Your task to perform on an android device: remove spam from my inbox in the gmail app Image 0: 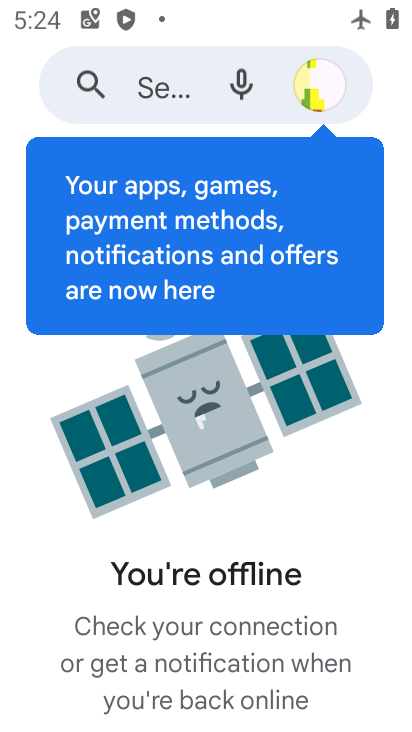
Step 0: press home button
Your task to perform on an android device: remove spam from my inbox in the gmail app Image 1: 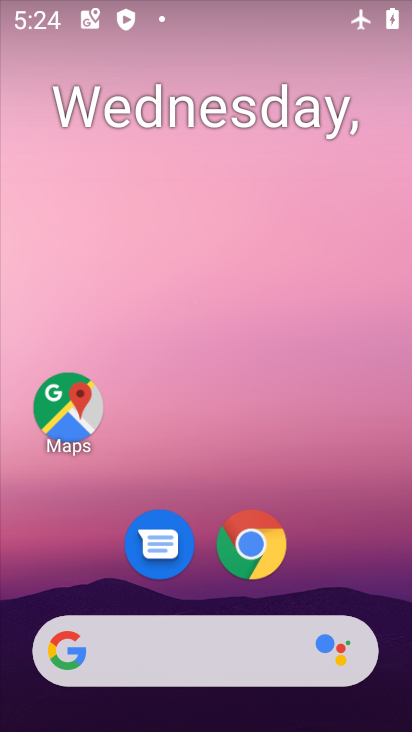
Step 1: drag from (397, 718) to (357, 75)
Your task to perform on an android device: remove spam from my inbox in the gmail app Image 2: 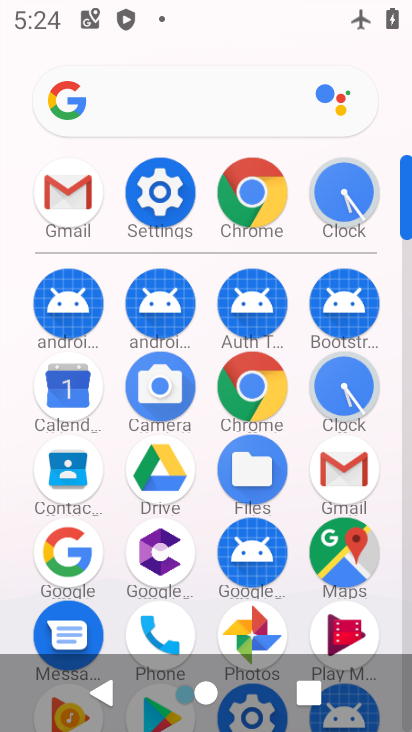
Step 2: click (49, 186)
Your task to perform on an android device: remove spam from my inbox in the gmail app Image 3: 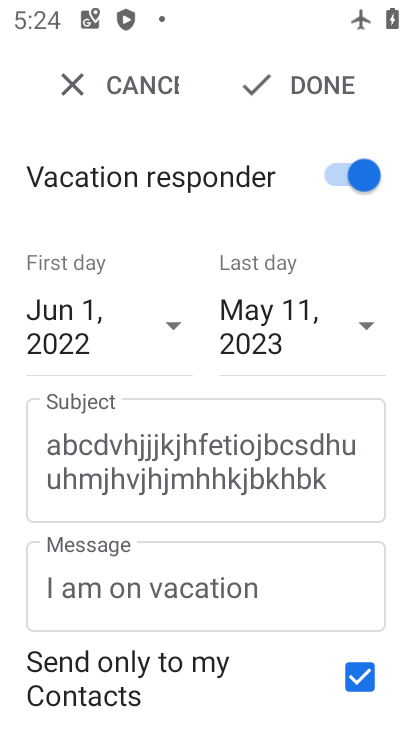
Step 3: click (76, 91)
Your task to perform on an android device: remove spam from my inbox in the gmail app Image 4: 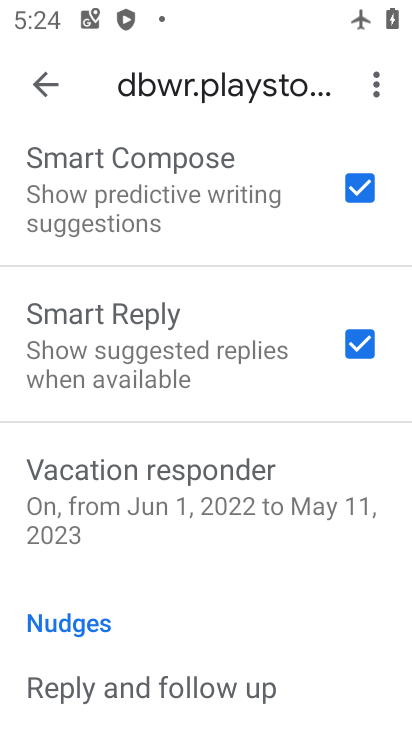
Step 4: click (45, 75)
Your task to perform on an android device: remove spam from my inbox in the gmail app Image 5: 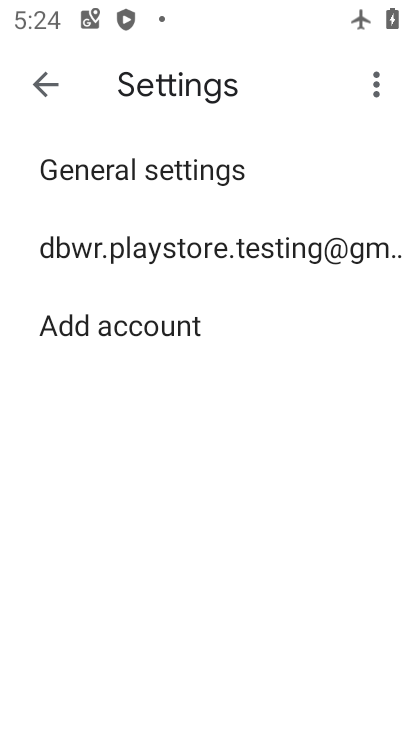
Step 5: click (44, 79)
Your task to perform on an android device: remove spam from my inbox in the gmail app Image 6: 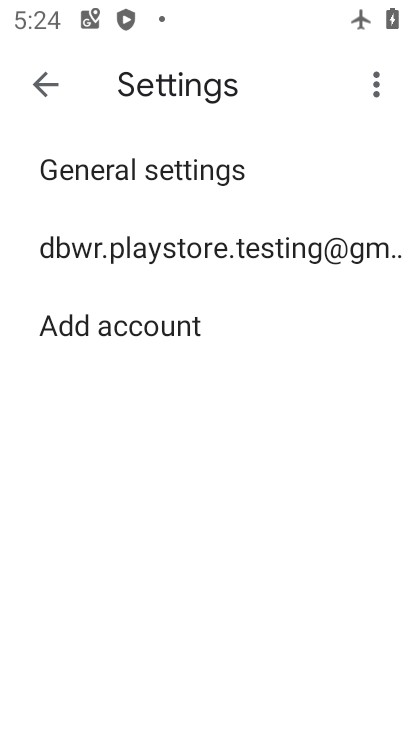
Step 6: click (40, 80)
Your task to perform on an android device: remove spam from my inbox in the gmail app Image 7: 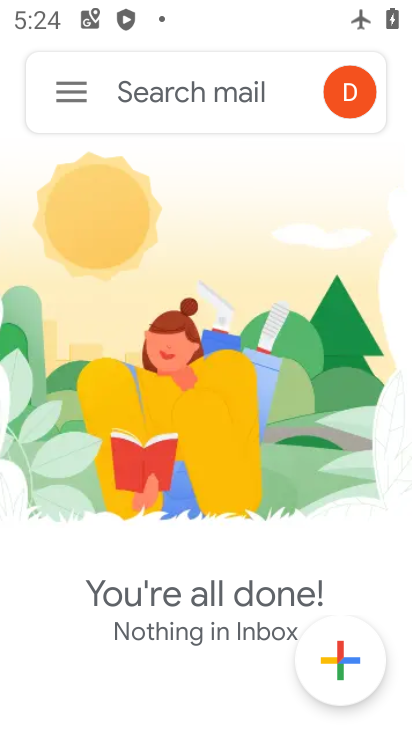
Step 7: click (62, 86)
Your task to perform on an android device: remove spam from my inbox in the gmail app Image 8: 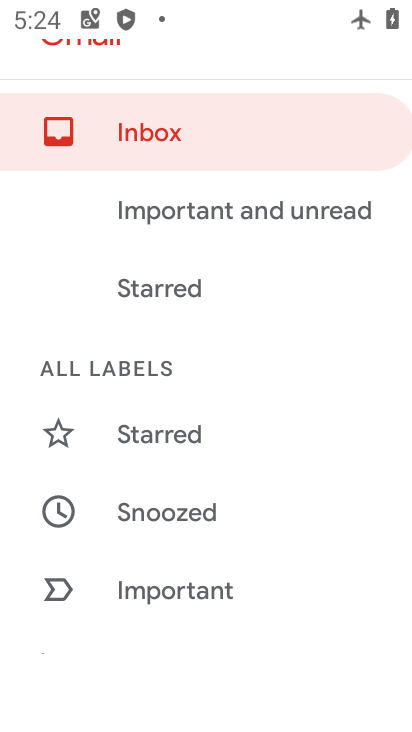
Step 8: drag from (284, 604) to (297, 162)
Your task to perform on an android device: remove spam from my inbox in the gmail app Image 9: 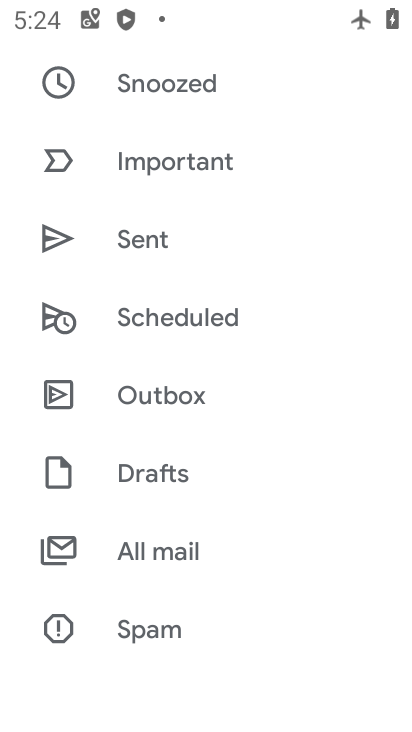
Step 9: drag from (281, 579) to (298, 284)
Your task to perform on an android device: remove spam from my inbox in the gmail app Image 10: 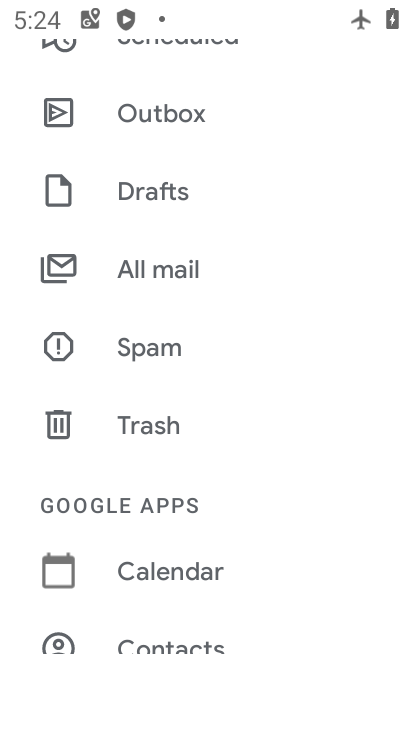
Step 10: click (140, 346)
Your task to perform on an android device: remove spam from my inbox in the gmail app Image 11: 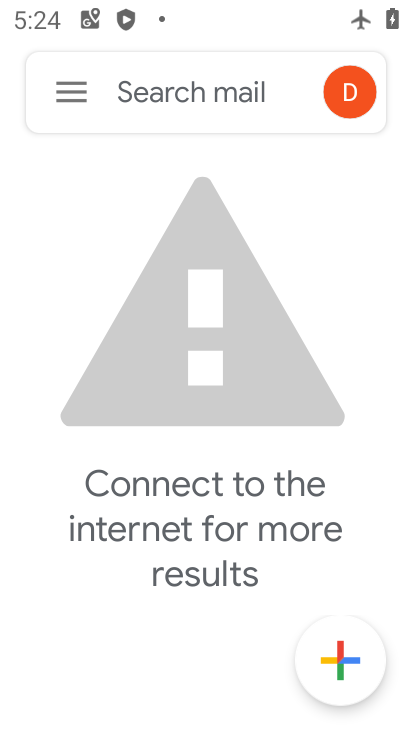
Step 11: task complete